Your task to perform on an android device: Open ESPN.com Image 0: 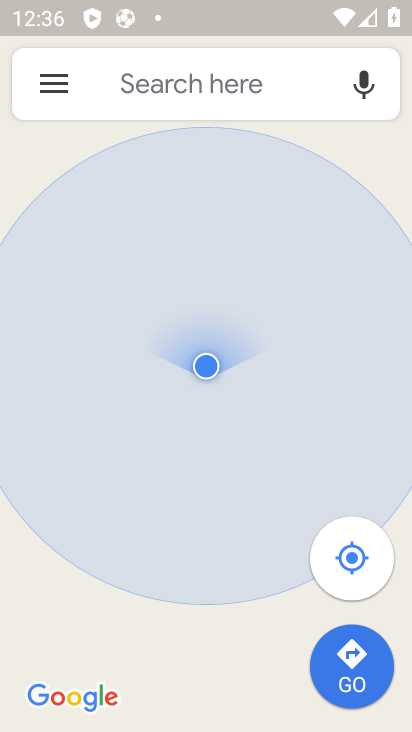
Step 0: press home button
Your task to perform on an android device: Open ESPN.com Image 1: 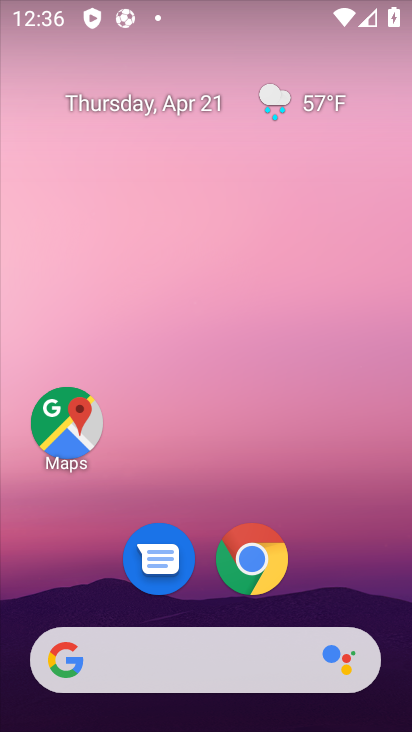
Step 1: drag from (162, 615) to (171, 351)
Your task to perform on an android device: Open ESPN.com Image 2: 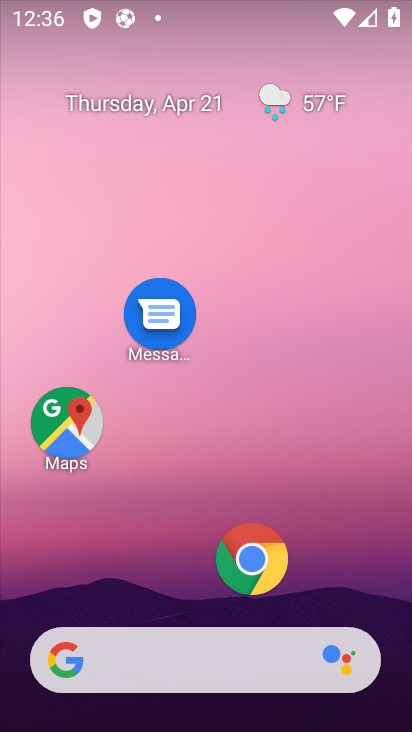
Step 2: click (250, 555)
Your task to perform on an android device: Open ESPN.com Image 3: 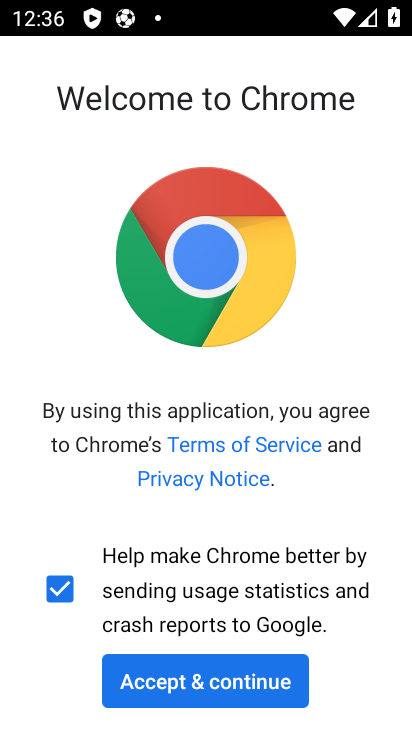
Step 3: click (197, 698)
Your task to perform on an android device: Open ESPN.com Image 4: 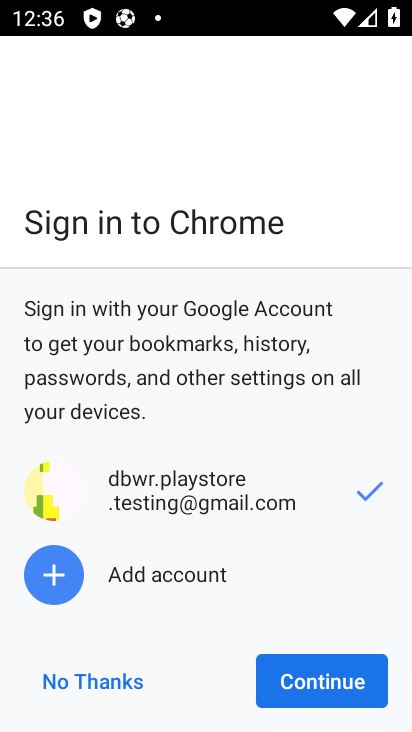
Step 4: click (336, 689)
Your task to perform on an android device: Open ESPN.com Image 5: 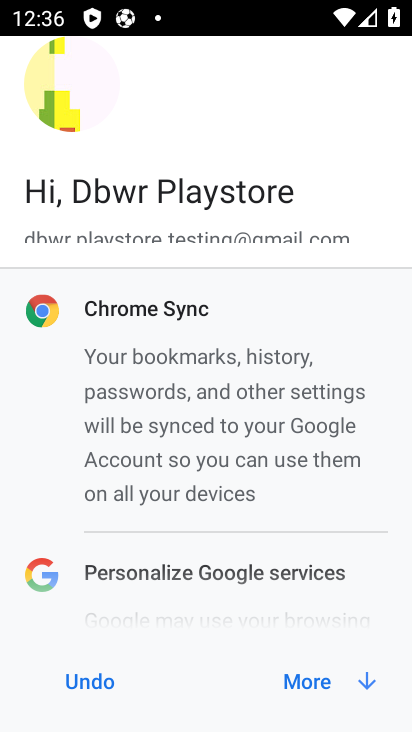
Step 5: click (331, 678)
Your task to perform on an android device: Open ESPN.com Image 6: 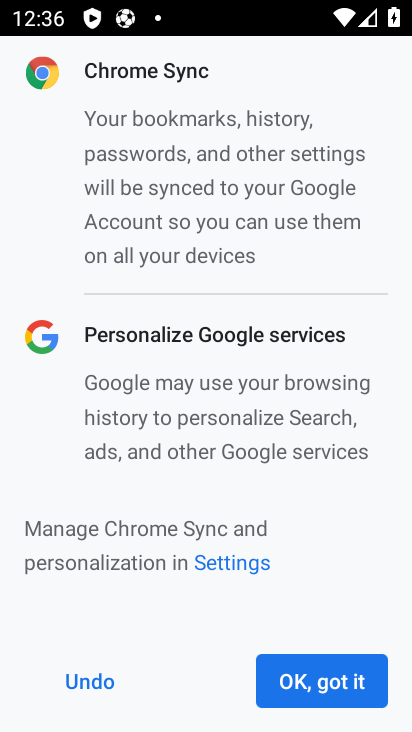
Step 6: click (331, 678)
Your task to perform on an android device: Open ESPN.com Image 7: 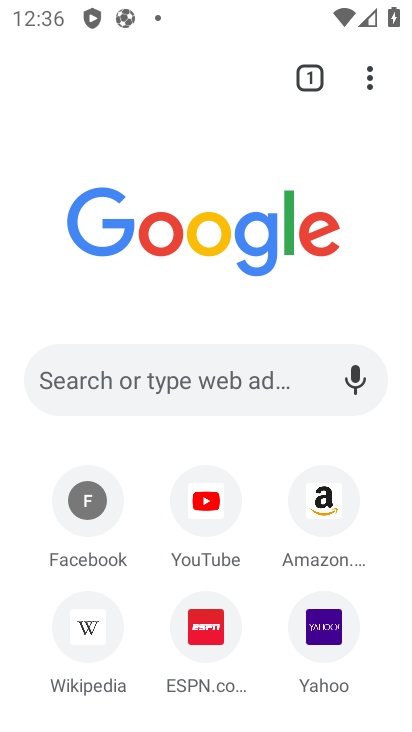
Step 7: click (201, 616)
Your task to perform on an android device: Open ESPN.com Image 8: 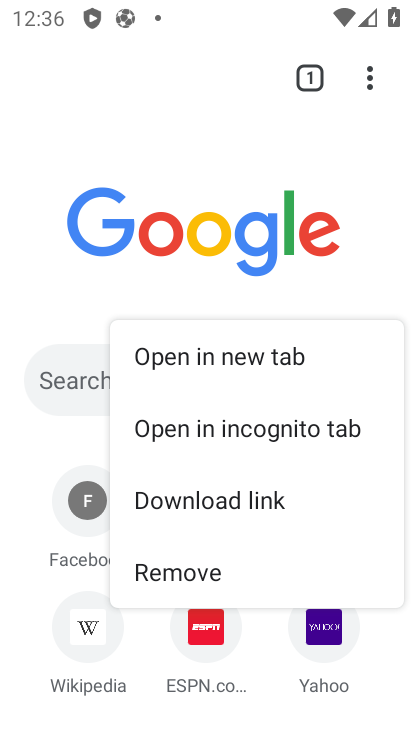
Step 8: click (201, 620)
Your task to perform on an android device: Open ESPN.com Image 9: 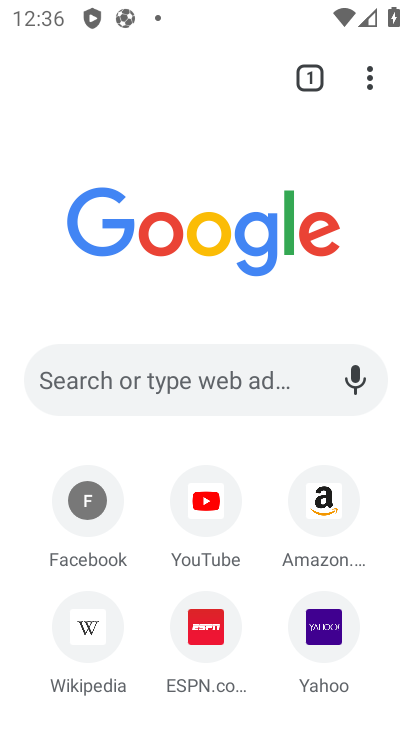
Step 9: click (211, 640)
Your task to perform on an android device: Open ESPN.com Image 10: 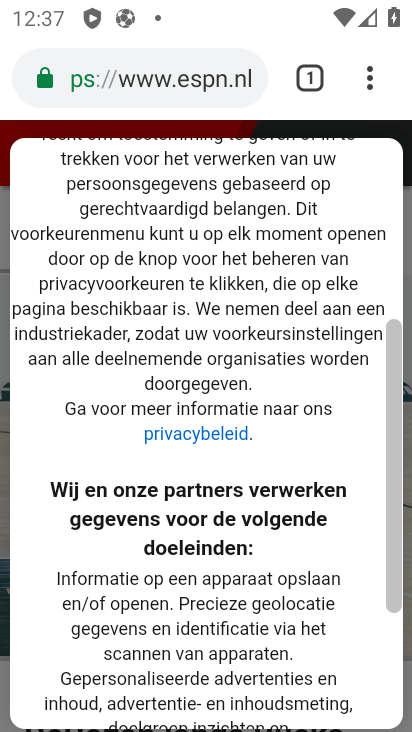
Step 10: task complete